Your task to perform on an android device: Go to settings Image 0: 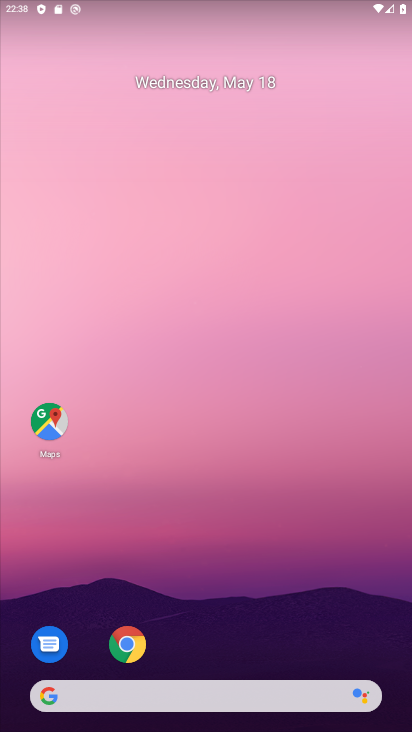
Step 0: drag from (320, 546) to (253, 19)
Your task to perform on an android device: Go to settings Image 1: 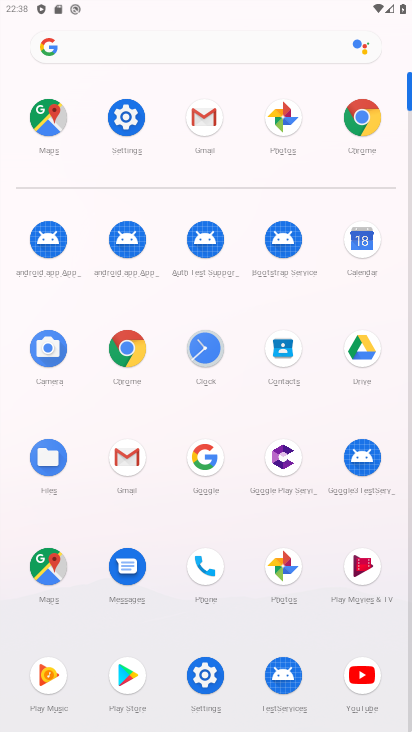
Step 1: click (132, 121)
Your task to perform on an android device: Go to settings Image 2: 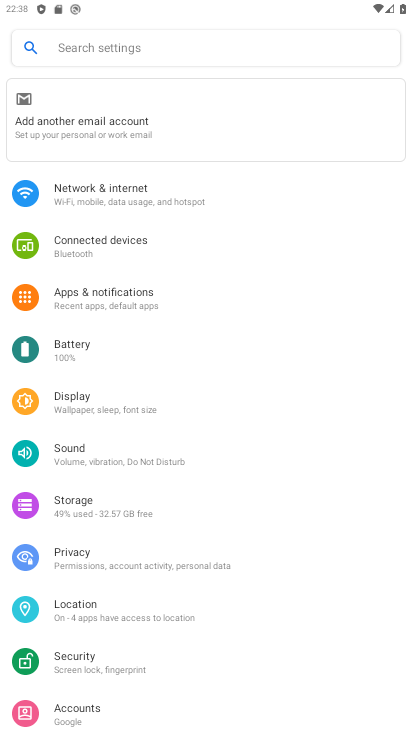
Step 2: task complete